Your task to perform on an android device: Go to Maps Image 0: 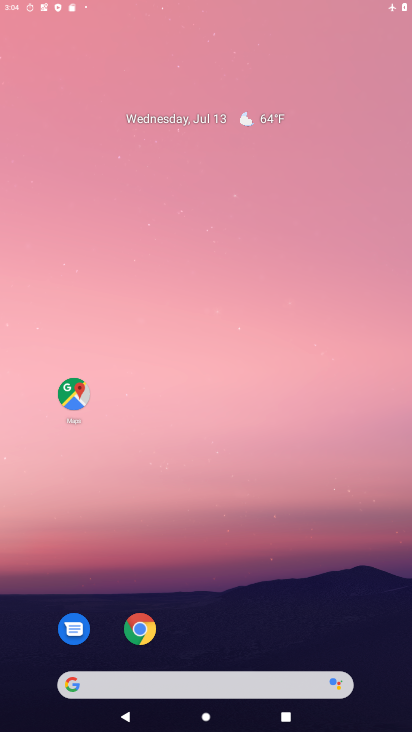
Step 0: press home button
Your task to perform on an android device: Go to Maps Image 1: 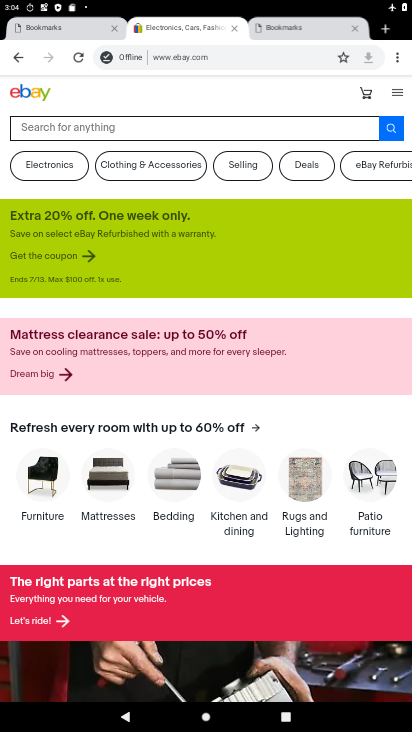
Step 1: click (318, 5)
Your task to perform on an android device: Go to Maps Image 2: 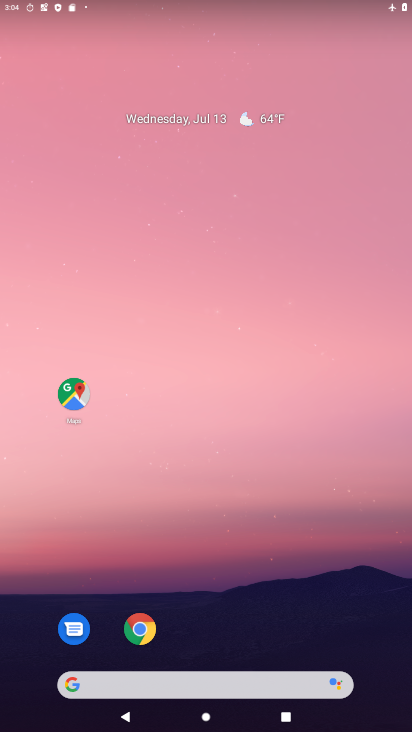
Step 2: drag from (259, 632) to (336, 5)
Your task to perform on an android device: Go to Maps Image 3: 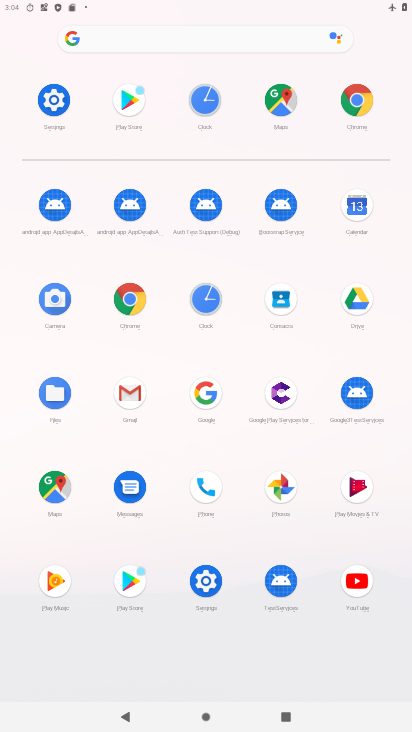
Step 3: click (50, 492)
Your task to perform on an android device: Go to Maps Image 4: 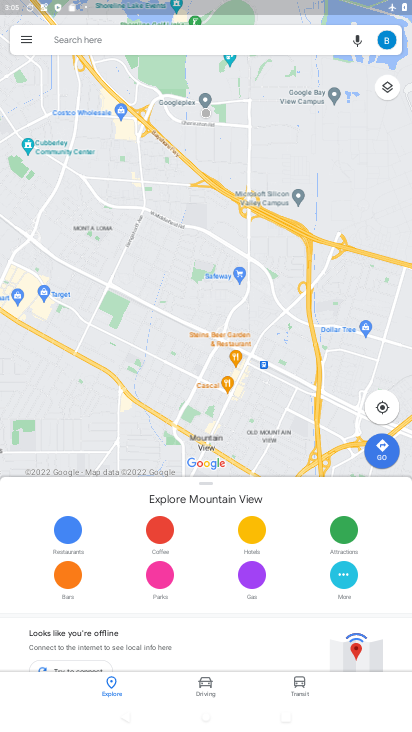
Step 4: task complete